Your task to perform on an android device: move a message to another label in the gmail app Image 0: 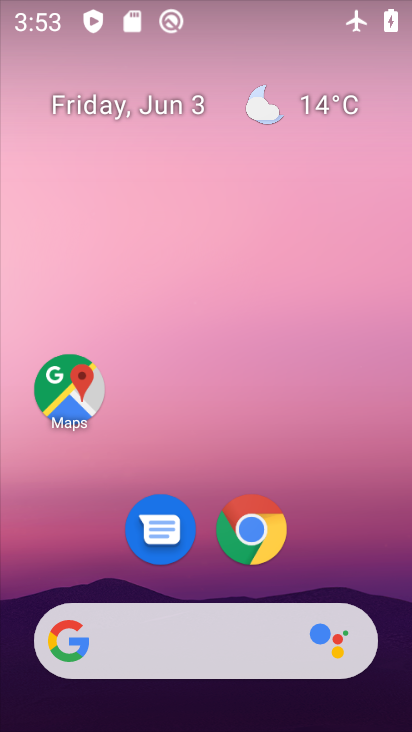
Step 0: press home button
Your task to perform on an android device: move a message to another label in the gmail app Image 1: 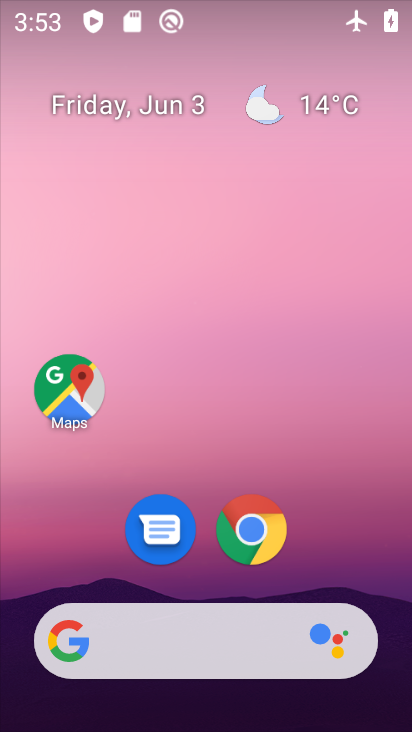
Step 1: drag from (212, 574) to (285, 85)
Your task to perform on an android device: move a message to another label in the gmail app Image 2: 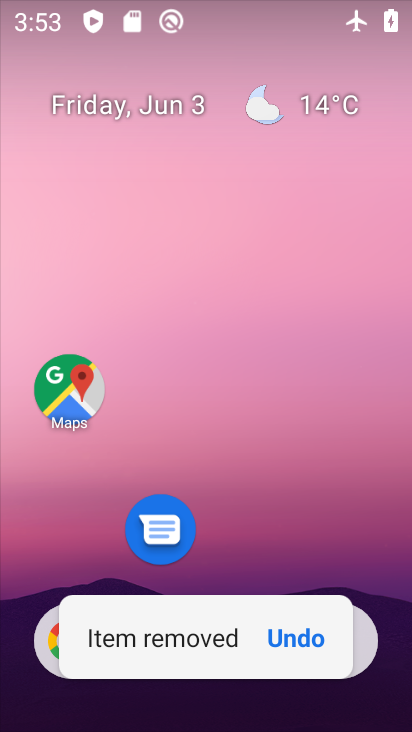
Step 2: click (289, 640)
Your task to perform on an android device: move a message to another label in the gmail app Image 3: 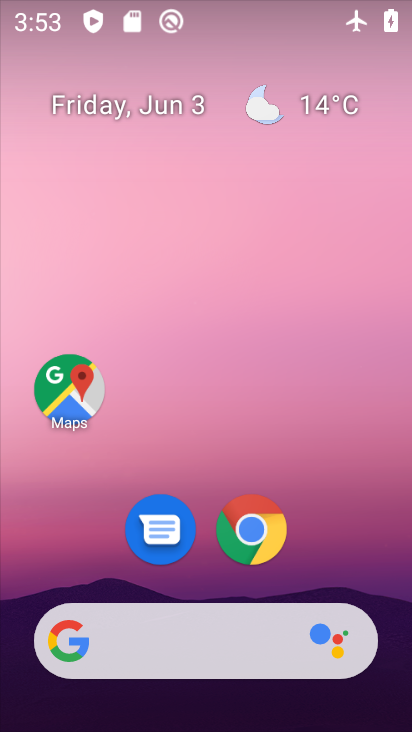
Step 3: drag from (322, 569) to (364, 61)
Your task to perform on an android device: move a message to another label in the gmail app Image 4: 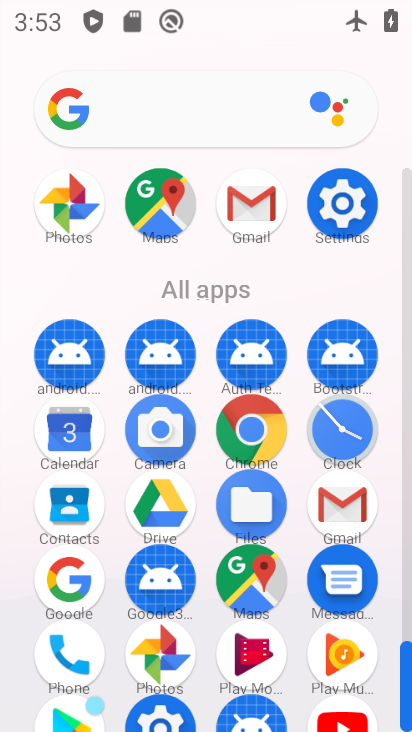
Step 4: click (340, 499)
Your task to perform on an android device: move a message to another label in the gmail app Image 5: 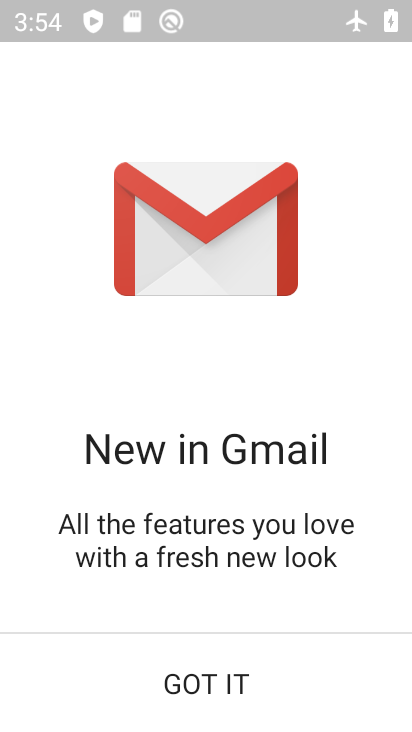
Step 5: click (215, 699)
Your task to perform on an android device: move a message to another label in the gmail app Image 6: 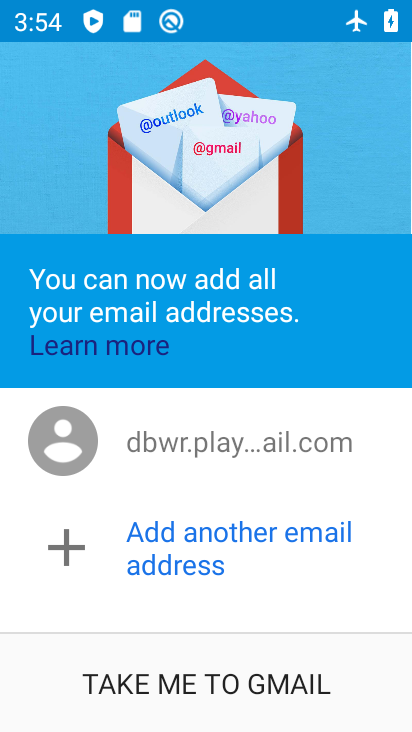
Step 6: click (206, 690)
Your task to perform on an android device: move a message to another label in the gmail app Image 7: 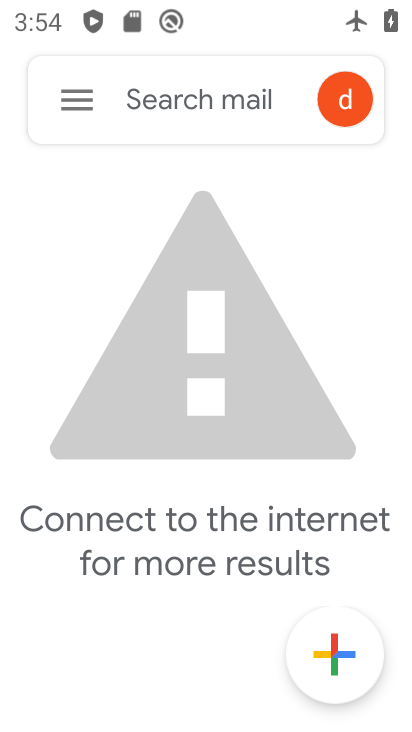
Step 7: task complete